Your task to perform on an android device: Open Maps and search for coffee Image 0: 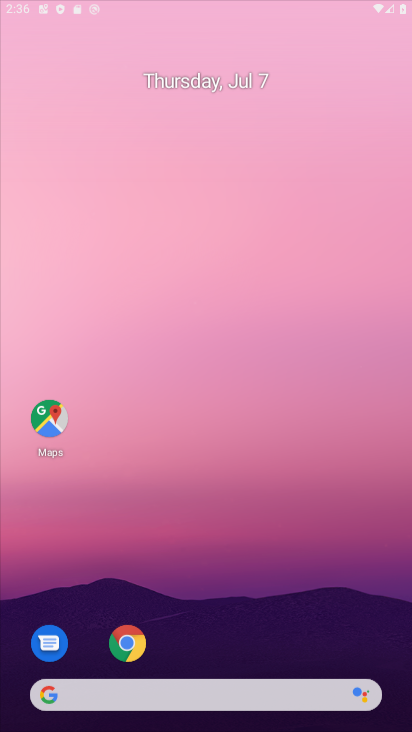
Step 0: press home button
Your task to perform on an android device: Open Maps and search for coffee Image 1: 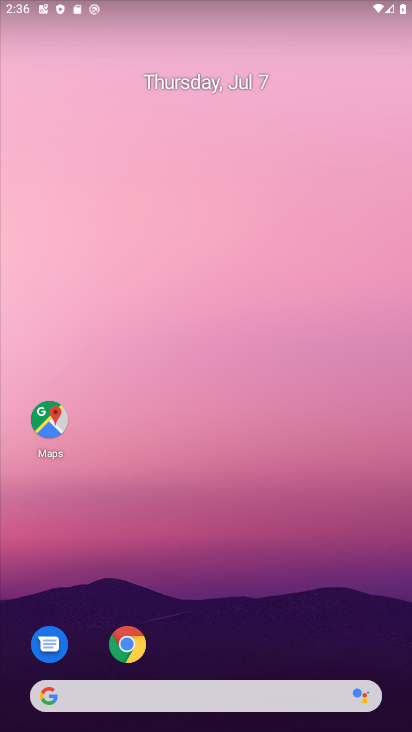
Step 1: drag from (268, 610) to (232, 211)
Your task to perform on an android device: Open Maps and search for coffee Image 2: 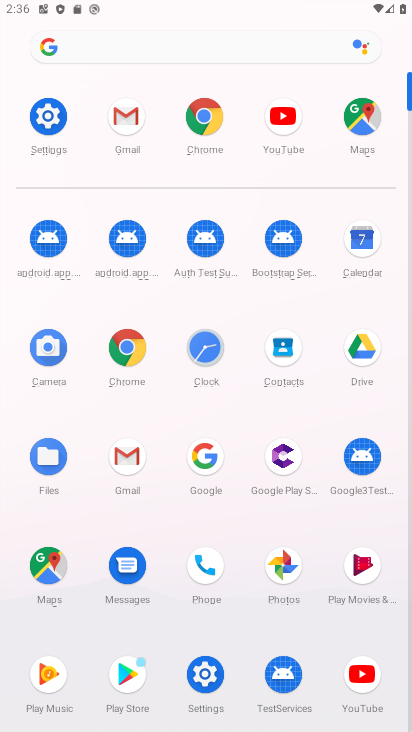
Step 2: click (361, 122)
Your task to perform on an android device: Open Maps and search for coffee Image 3: 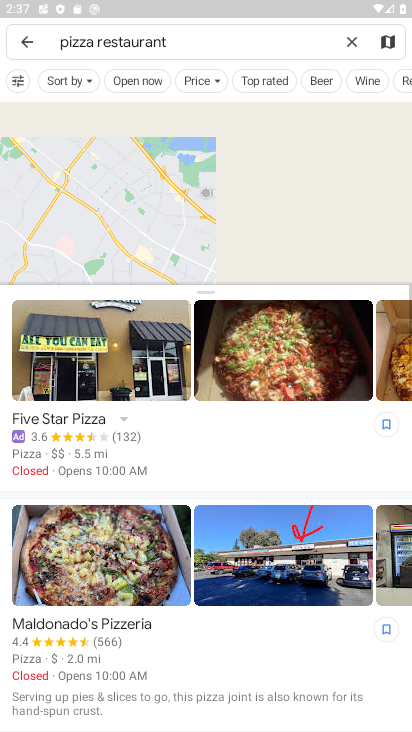
Step 3: click (351, 39)
Your task to perform on an android device: Open Maps and search for coffee Image 4: 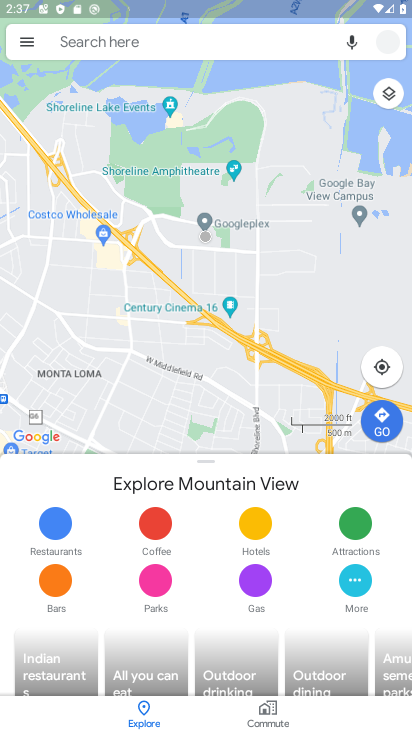
Step 4: click (183, 37)
Your task to perform on an android device: Open Maps and search for coffee Image 5: 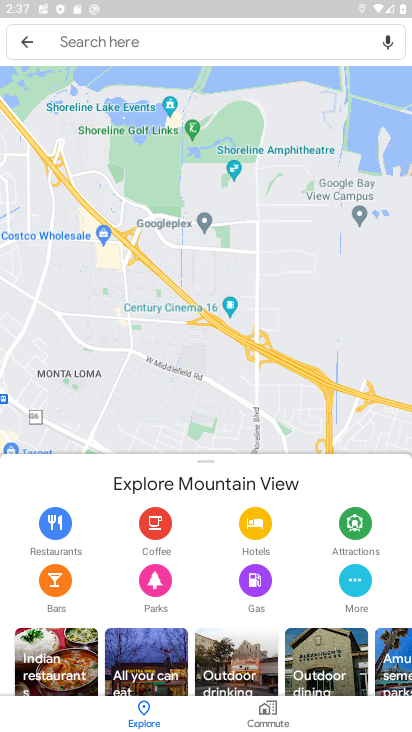
Step 5: click (119, 47)
Your task to perform on an android device: Open Maps and search for coffee Image 6: 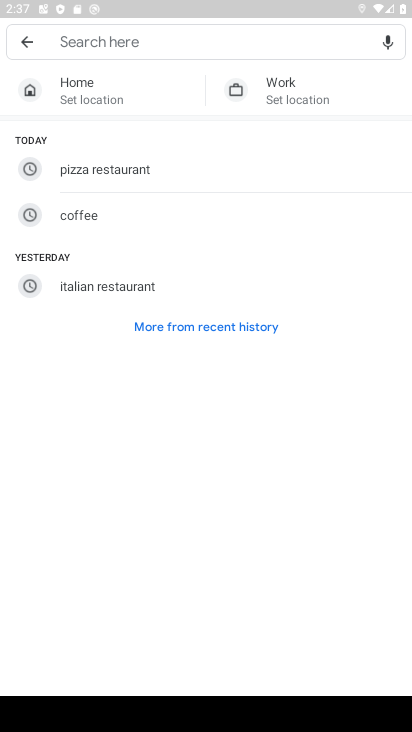
Step 6: click (78, 214)
Your task to perform on an android device: Open Maps and search for coffee Image 7: 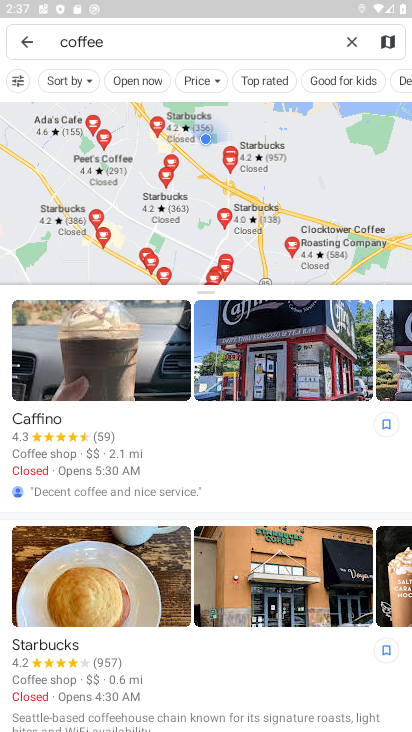
Step 7: task complete